Your task to perform on an android device: Open calendar and show me the fourth week of next month Image 0: 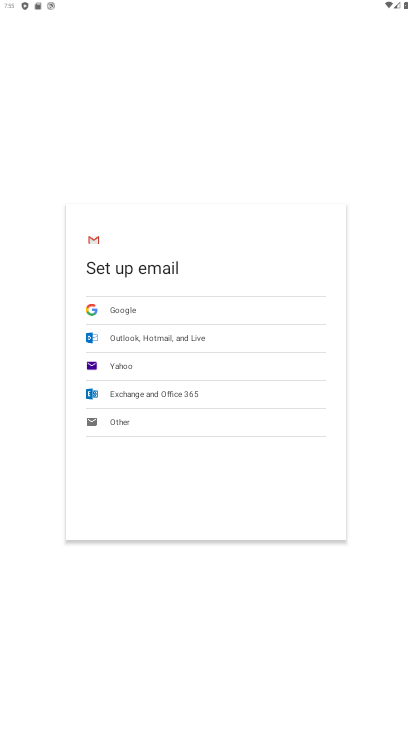
Step 0: press home button
Your task to perform on an android device: Open calendar and show me the fourth week of next month Image 1: 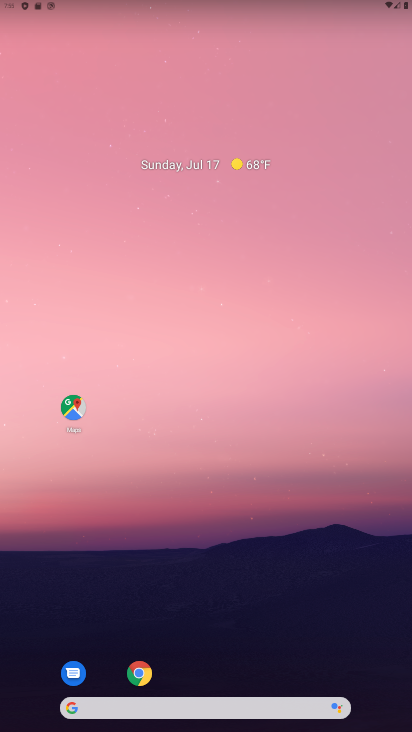
Step 1: drag from (236, 663) to (96, 5)
Your task to perform on an android device: Open calendar and show me the fourth week of next month Image 2: 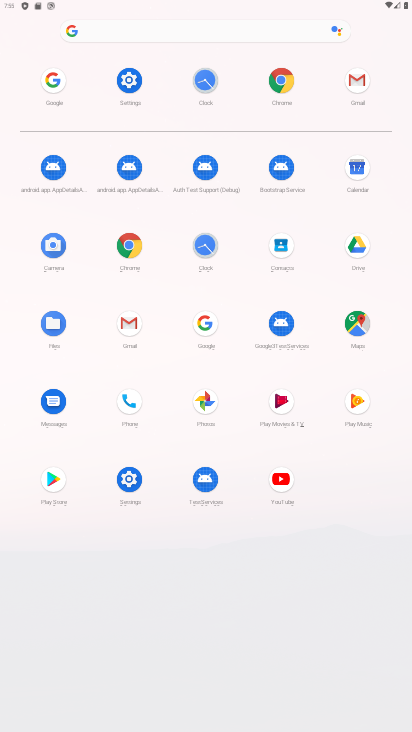
Step 2: click (360, 194)
Your task to perform on an android device: Open calendar and show me the fourth week of next month Image 3: 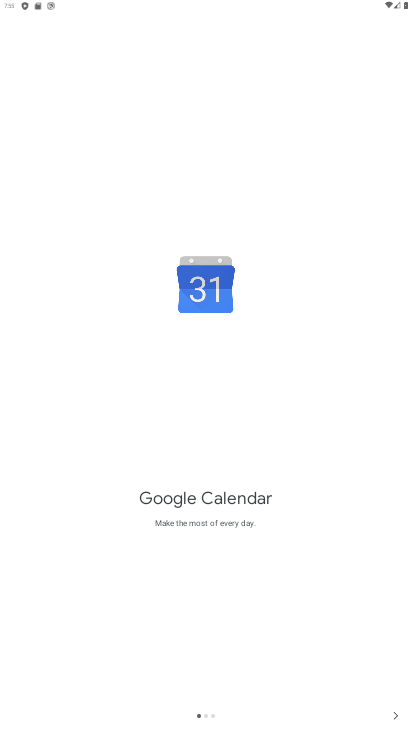
Step 3: click (389, 711)
Your task to perform on an android device: Open calendar and show me the fourth week of next month Image 4: 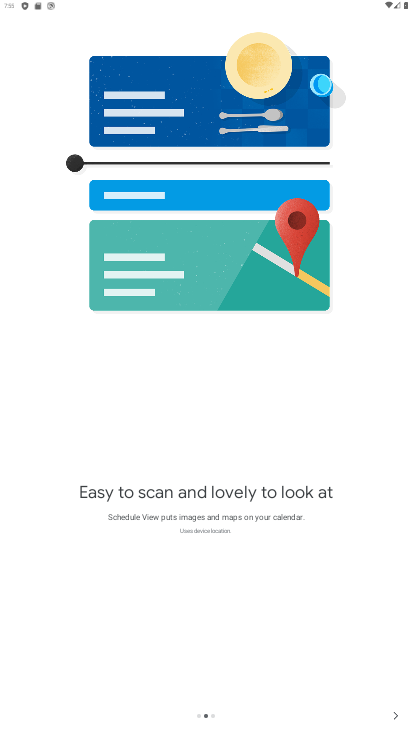
Step 4: click (392, 711)
Your task to perform on an android device: Open calendar and show me the fourth week of next month Image 5: 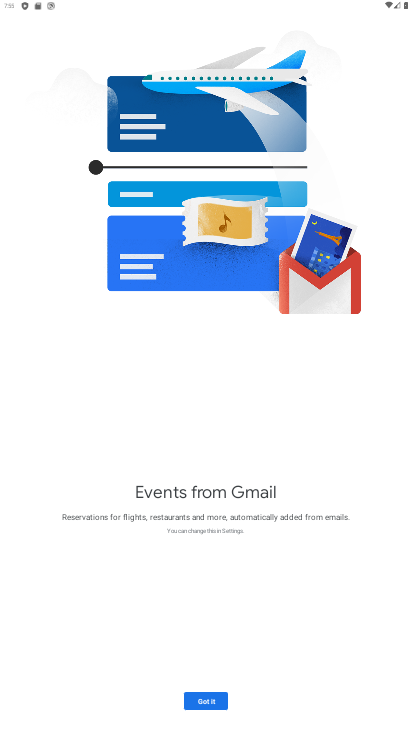
Step 5: click (205, 698)
Your task to perform on an android device: Open calendar and show me the fourth week of next month Image 6: 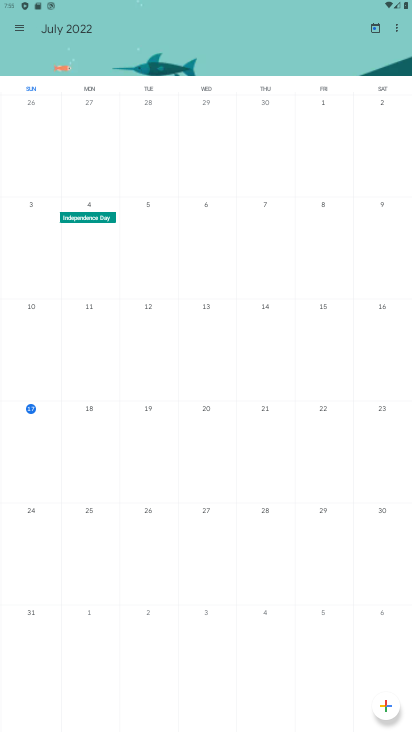
Step 6: drag from (332, 485) to (10, 455)
Your task to perform on an android device: Open calendar and show me the fourth week of next month Image 7: 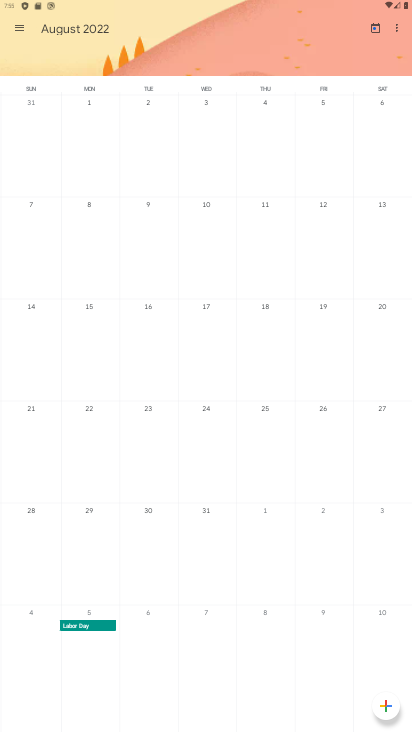
Step 7: click (23, 512)
Your task to perform on an android device: Open calendar and show me the fourth week of next month Image 8: 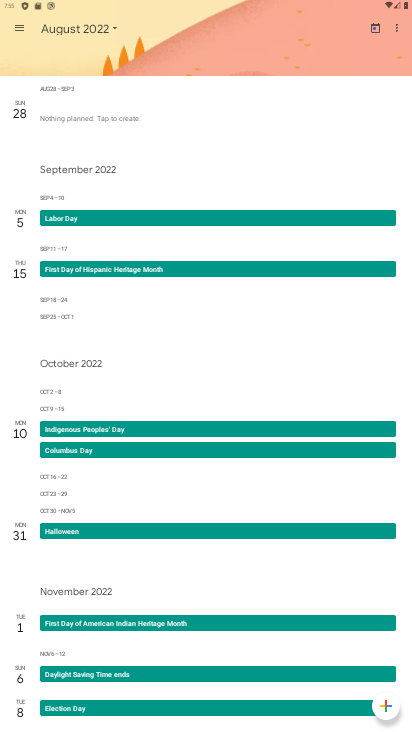
Step 8: task complete